Your task to perform on an android device: turn off airplane mode Image 0: 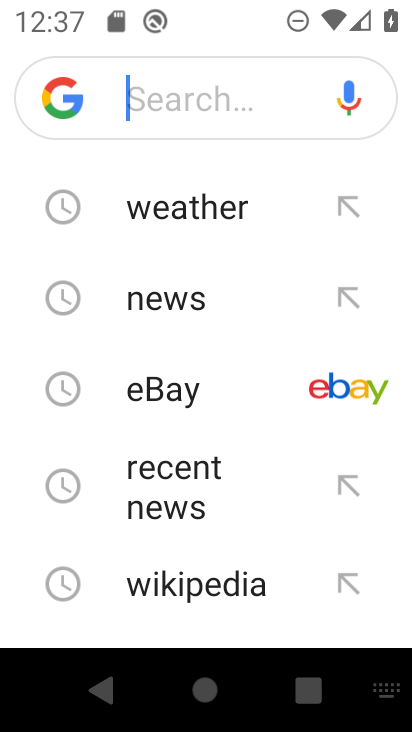
Step 0: press home button
Your task to perform on an android device: turn off airplane mode Image 1: 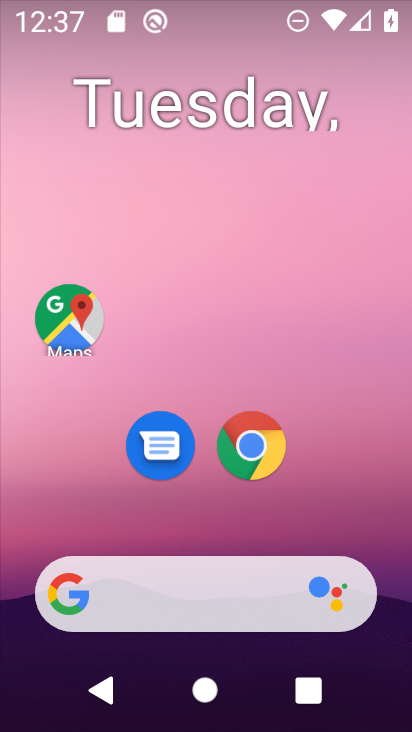
Step 1: drag from (395, 545) to (381, 274)
Your task to perform on an android device: turn off airplane mode Image 2: 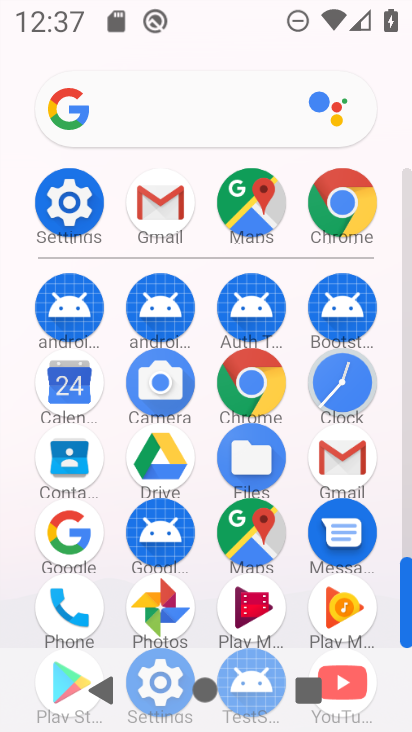
Step 2: drag from (396, 482) to (398, 310)
Your task to perform on an android device: turn off airplane mode Image 3: 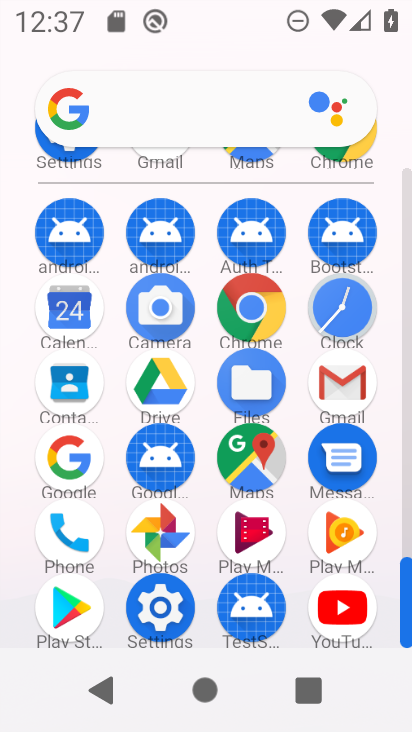
Step 3: click (152, 630)
Your task to perform on an android device: turn off airplane mode Image 4: 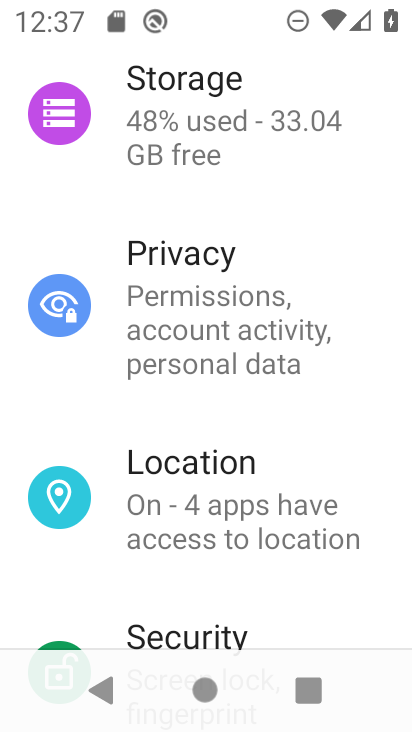
Step 4: drag from (359, 614) to (379, 484)
Your task to perform on an android device: turn off airplane mode Image 5: 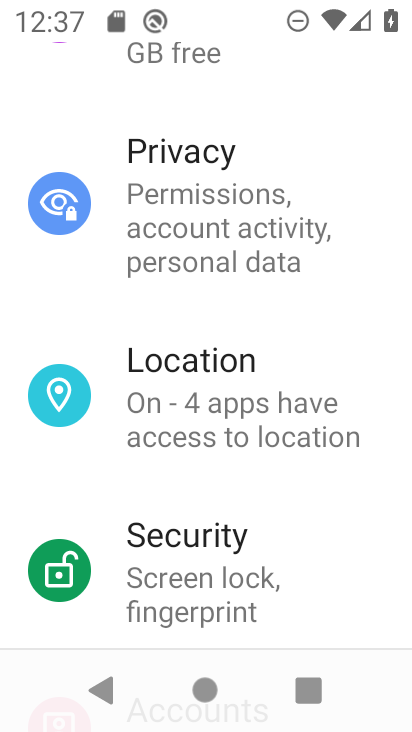
Step 5: drag from (367, 617) to (366, 471)
Your task to perform on an android device: turn off airplane mode Image 6: 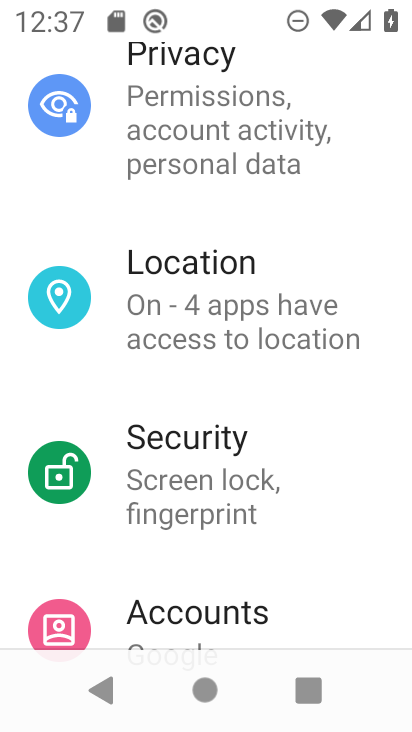
Step 6: drag from (359, 624) to (361, 477)
Your task to perform on an android device: turn off airplane mode Image 7: 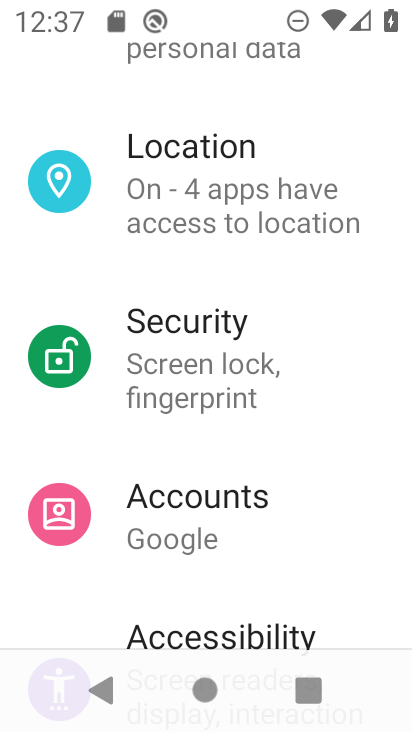
Step 7: drag from (365, 602) to (359, 466)
Your task to perform on an android device: turn off airplane mode Image 8: 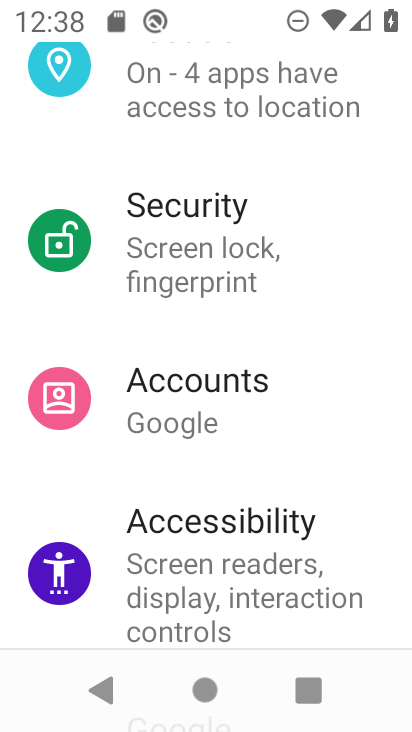
Step 8: drag from (386, 615) to (392, 480)
Your task to perform on an android device: turn off airplane mode Image 9: 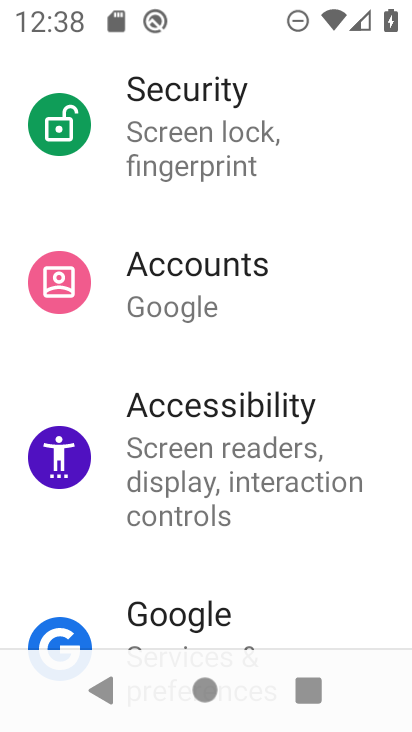
Step 9: drag from (383, 626) to (369, 479)
Your task to perform on an android device: turn off airplane mode Image 10: 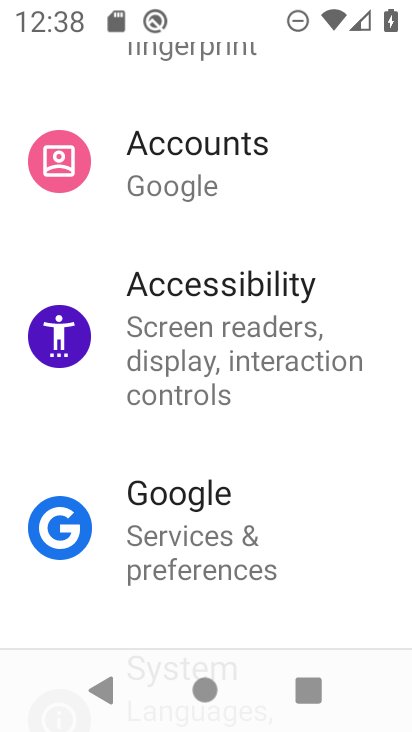
Step 10: drag from (356, 605) to (351, 437)
Your task to perform on an android device: turn off airplane mode Image 11: 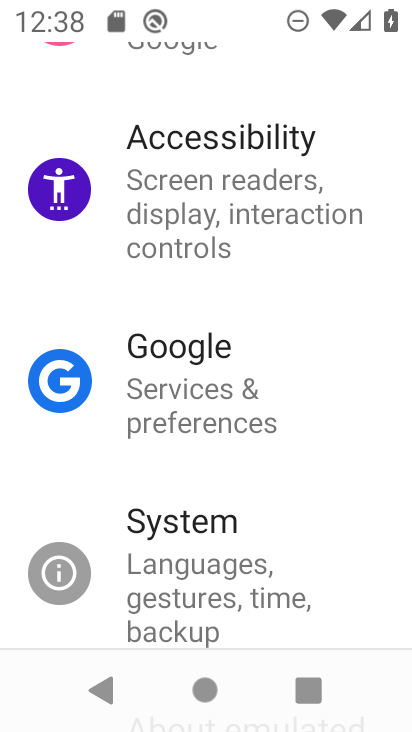
Step 11: drag from (360, 619) to (362, 463)
Your task to perform on an android device: turn off airplane mode Image 12: 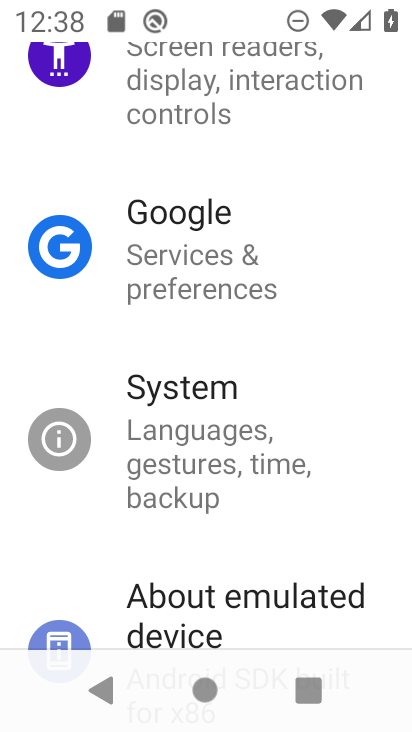
Step 12: drag from (363, 406) to (359, 482)
Your task to perform on an android device: turn off airplane mode Image 13: 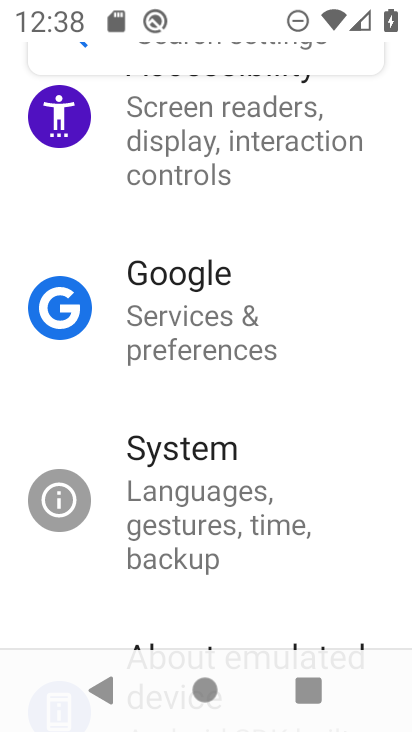
Step 13: drag from (373, 420) to (378, 499)
Your task to perform on an android device: turn off airplane mode Image 14: 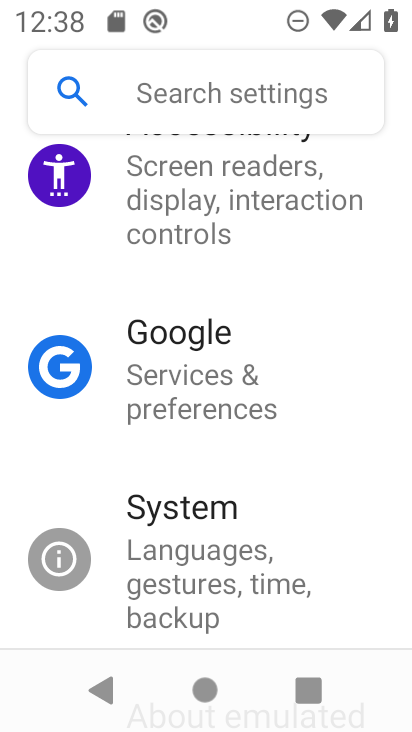
Step 14: drag from (367, 387) to (364, 478)
Your task to perform on an android device: turn off airplane mode Image 15: 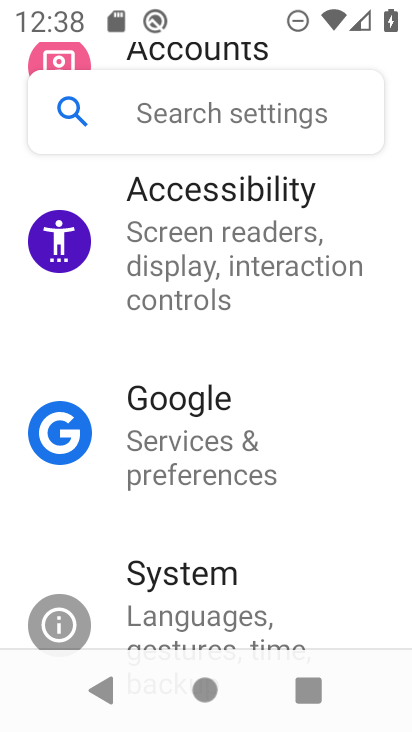
Step 15: drag from (345, 372) to (355, 495)
Your task to perform on an android device: turn off airplane mode Image 16: 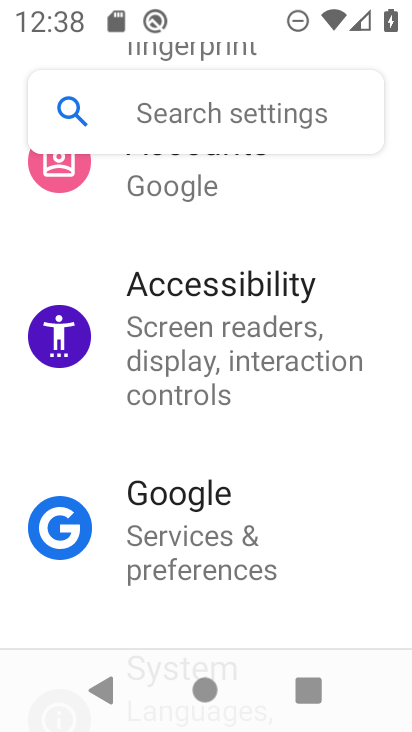
Step 16: drag from (375, 392) to (375, 501)
Your task to perform on an android device: turn off airplane mode Image 17: 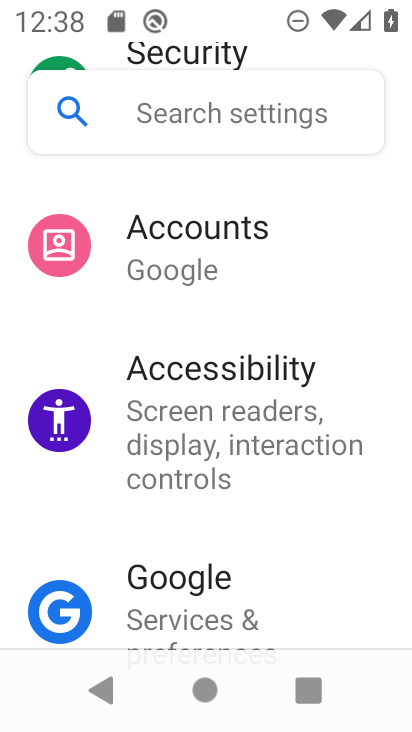
Step 17: drag from (374, 365) to (385, 484)
Your task to perform on an android device: turn off airplane mode Image 18: 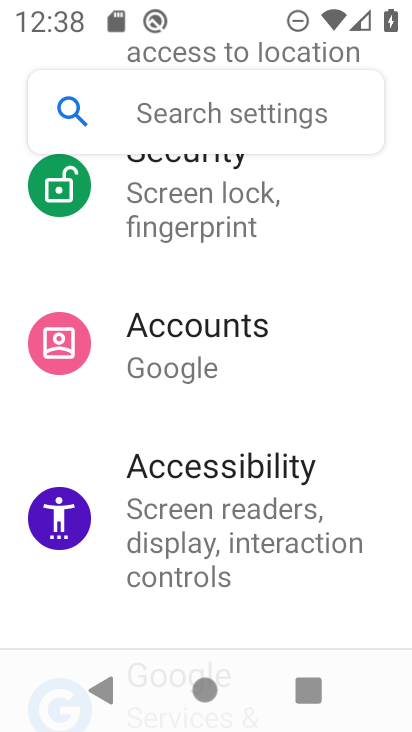
Step 18: drag from (367, 355) to (376, 464)
Your task to perform on an android device: turn off airplane mode Image 19: 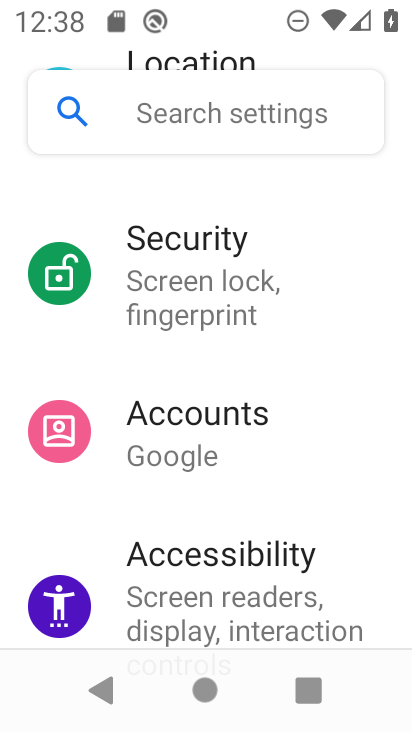
Step 19: drag from (349, 339) to (359, 439)
Your task to perform on an android device: turn off airplane mode Image 20: 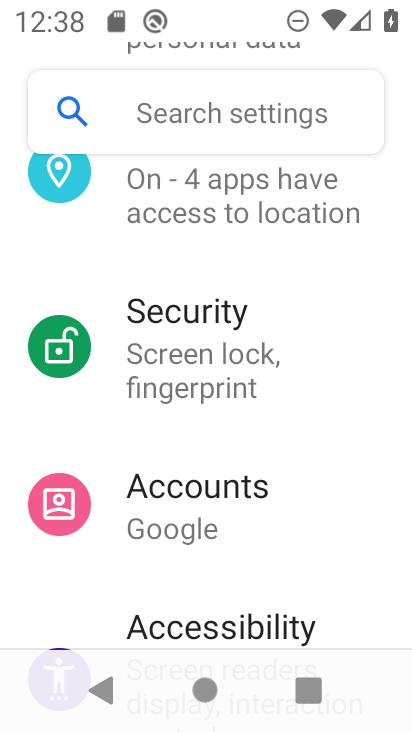
Step 20: drag from (349, 337) to (343, 466)
Your task to perform on an android device: turn off airplane mode Image 21: 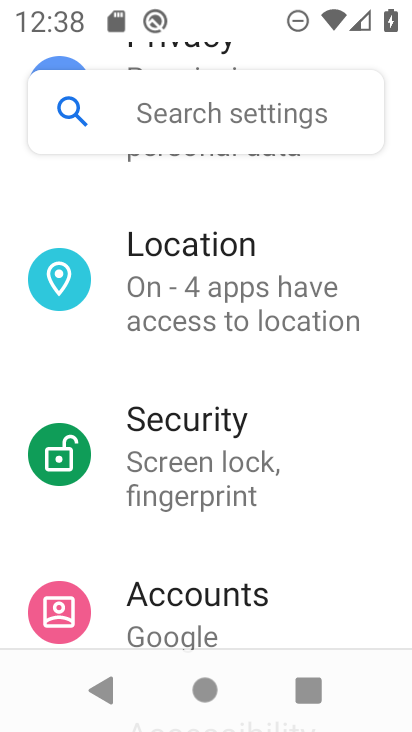
Step 21: drag from (359, 352) to (371, 472)
Your task to perform on an android device: turn off airplane mode Image 22: 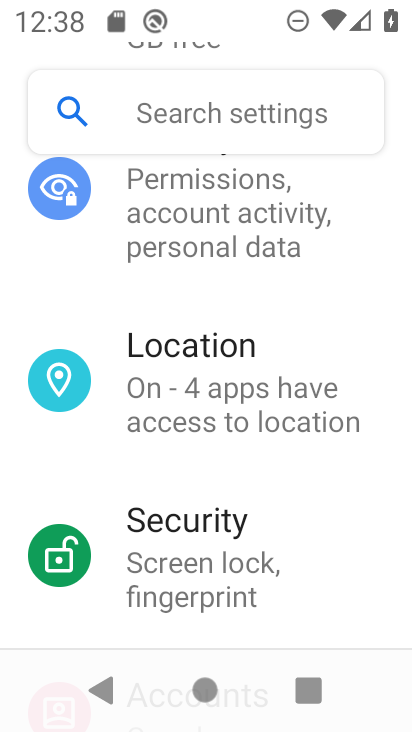
Step 22: drag from (380, 312) to (380, 481)
Your task to perform on an android device: turn off airplane mode Image 23: 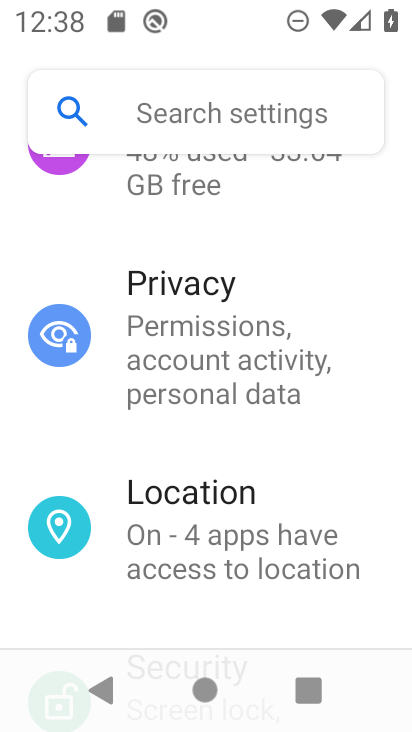
Step 23: drag from (363, 297) to (364, 443)
Your task to perform on an android device: turn off airplane mode Image 24: 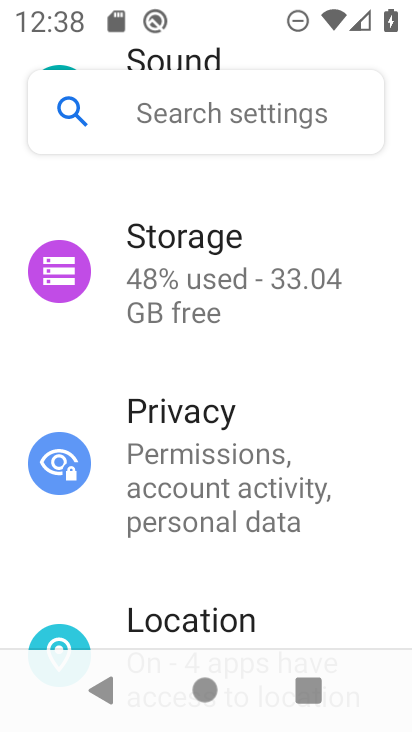
Step 24: drag from (340, 238) to (337, 378)
Your task to perform on an android device: turn off airplane mode Image 25: 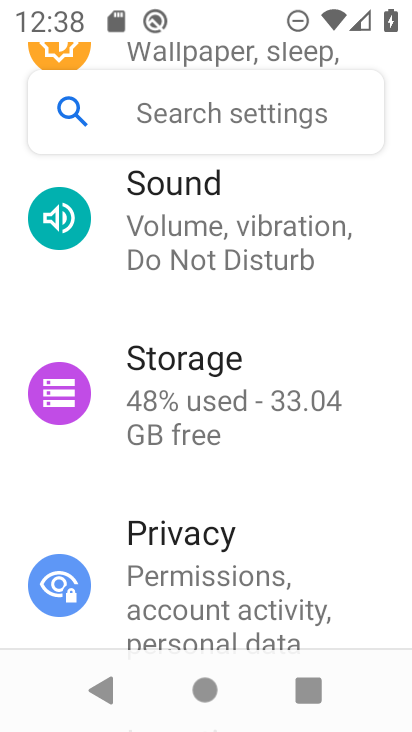
Step 25: drag from (367, 243) to (364, 382)
Your task to perform on an android device: turn off airplane mode Image 26: 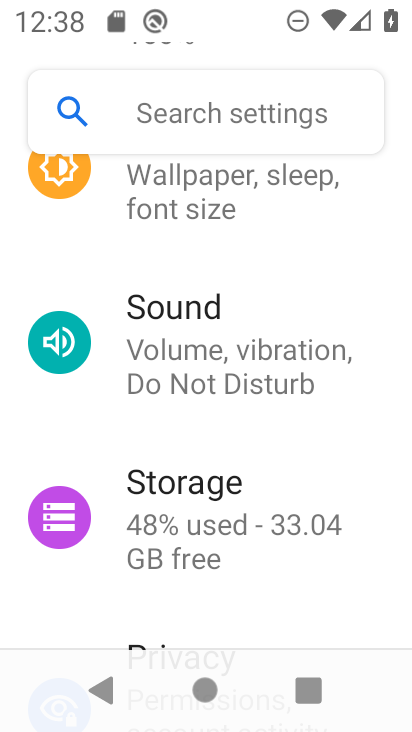
Step 26: drag from (372, 217) to (390, 350)
Your task to perform on an android device: turn off airplane mode Image 27: 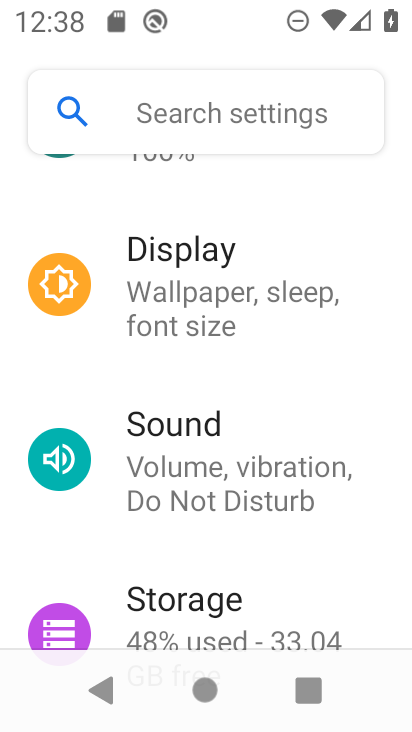
Step 27: drag from (378, 196) to (383, 324)
Your task to perform on an android device: turn off airplane mode Image 28: 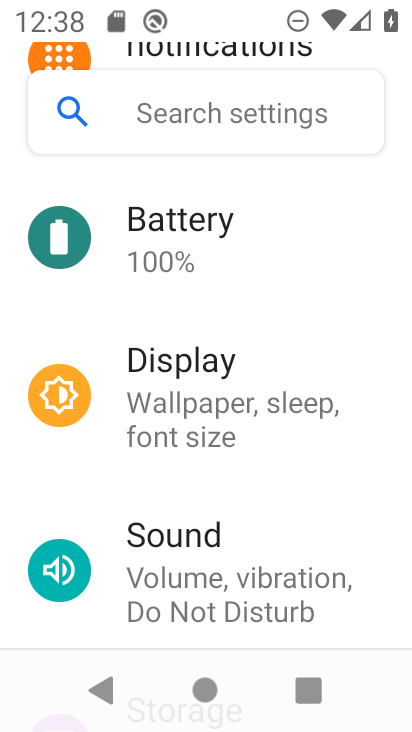
Step 28: drag from (372, 176) to (365, 374)
Your task to perform on an android device: turn off airplane mode Image 29: 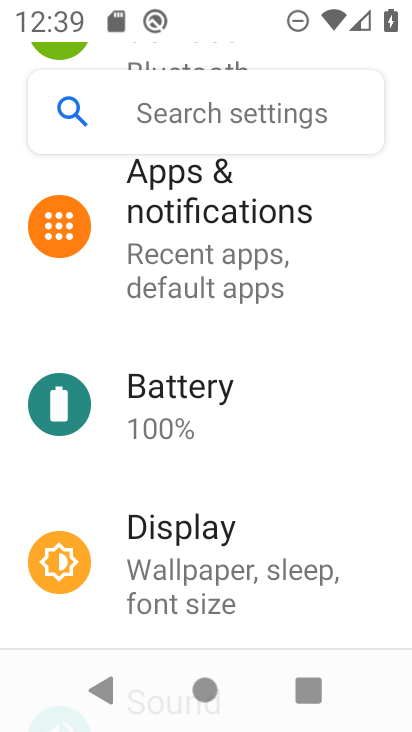
Step 29: drag from (359, 192) to (361, 379)
Your task to perform on an android device: turn off airplane mode Image 30: 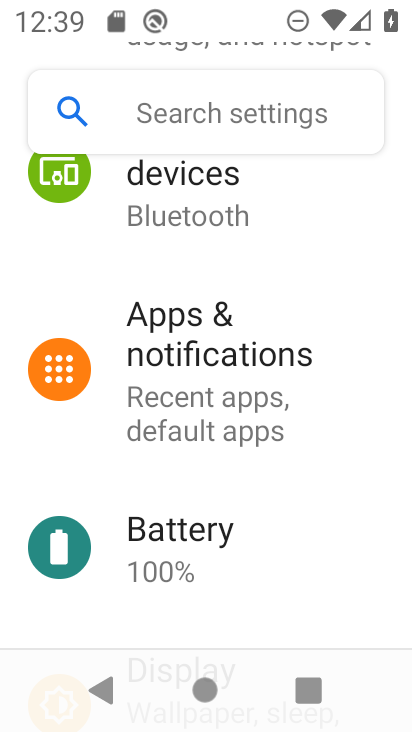
Step 30: drag from (352, 189) to (357, 371)
Your task to perform on an android device: turn off airplane mode Image 31: 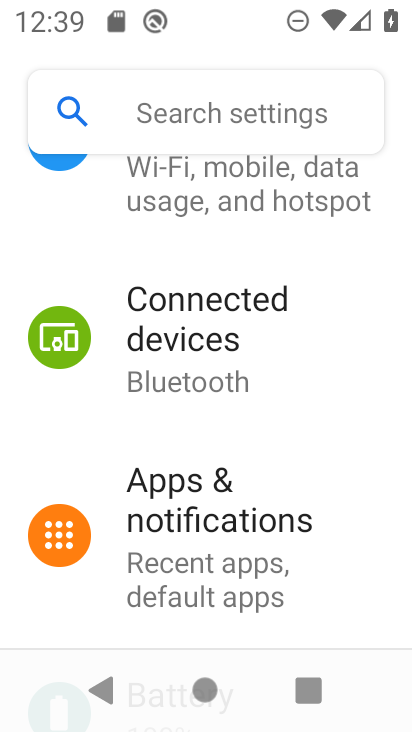
Step 31: drag from (384, 171) to (388, 329)
Your task to perform on an android device: turn off airplane mode Image 32: 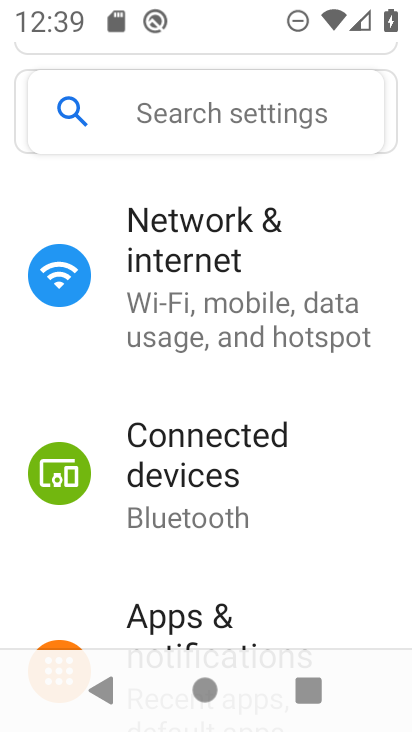
Step 32: click (267, 291)
Your task to perform on an android device: turn off airplane mode Image 33: 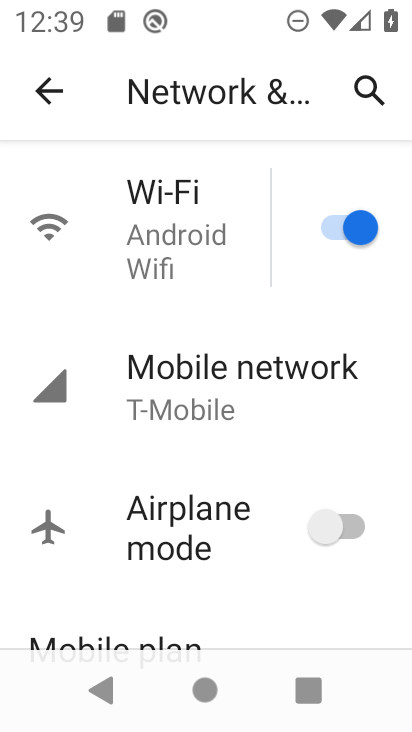
Step 33: task complete